Your task to perform on an android device: turn on location history Image 0: 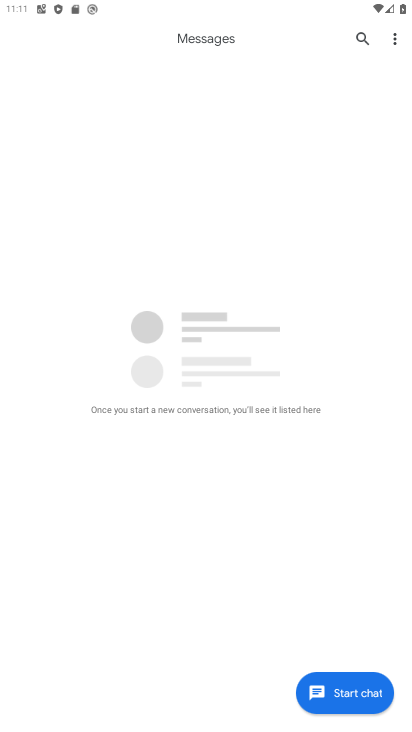
Step 0: press home button
Your task to perform on an android device: turn on location history Image 1: 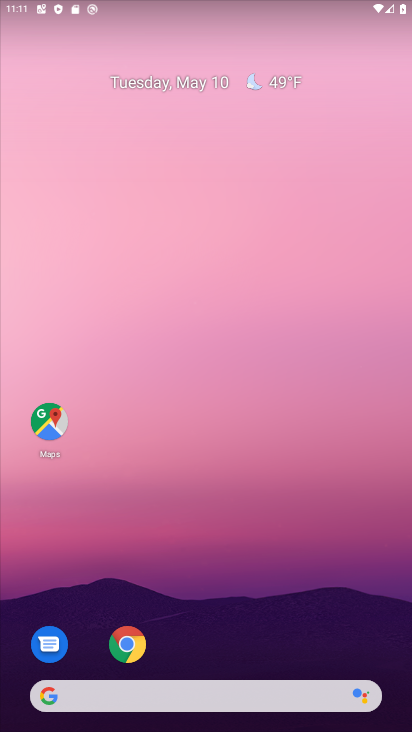
Step 1: drag from (212, 664) to (226, 145)
Your task to perform on an android device: turn on location history Image 2: 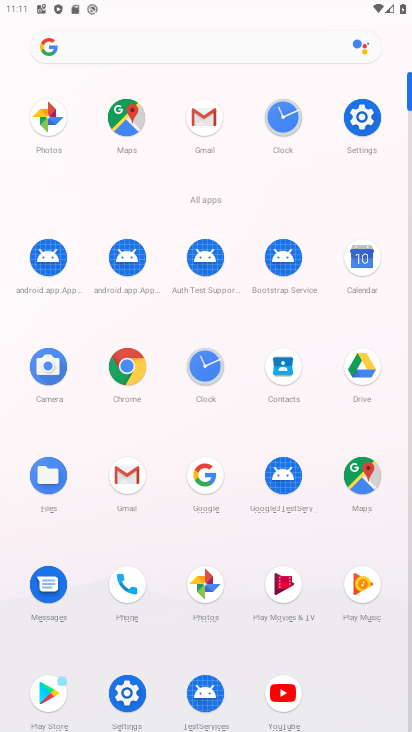
Step 2: click (349, 127)
Your task to perform on an android device: turn on location history Image 3: 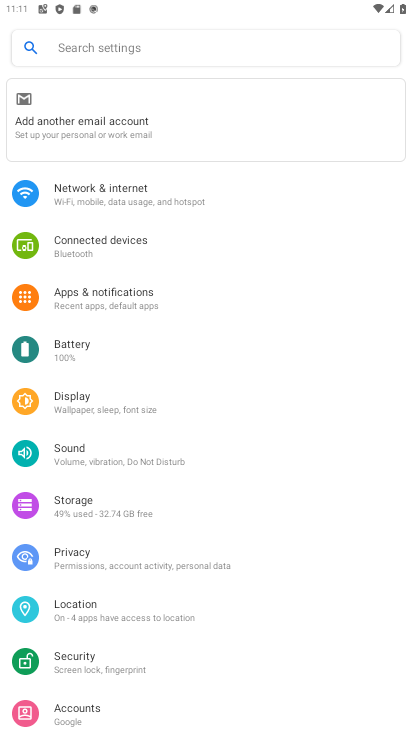
Step 3: click (114, 623)
Your task to perform on an android device: turn on location history Image 4: 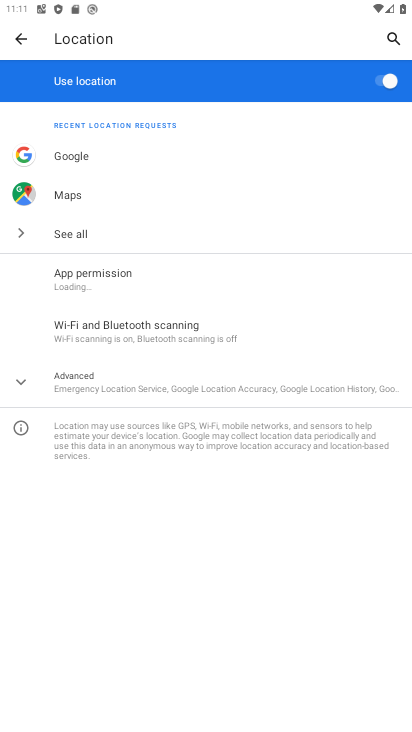
Step 4: click (128, 378)
Your task to perform on an android device: turn on location history Image 5: 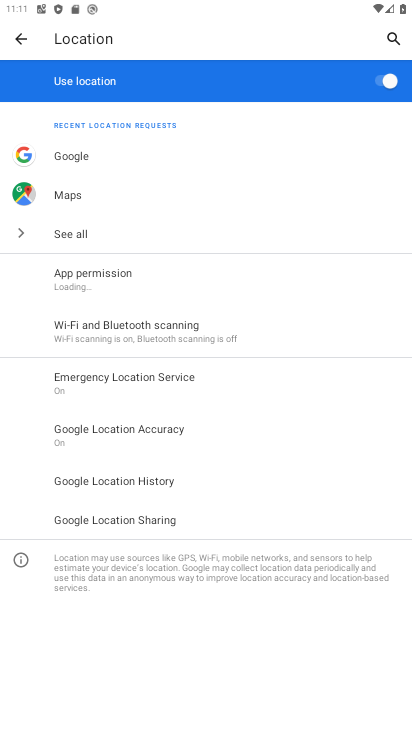
Step 5: click (172, 487)
Your task to perform on an android device: turn on location history Image 6: 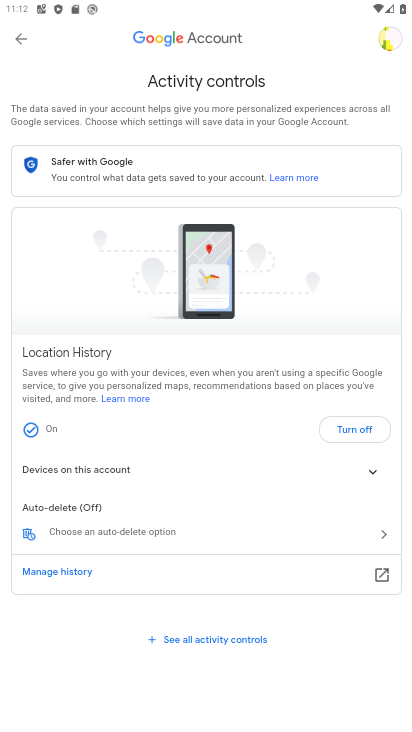
Step 6: task complete